Your task to perform on an android device: change notifications settings Image 0: 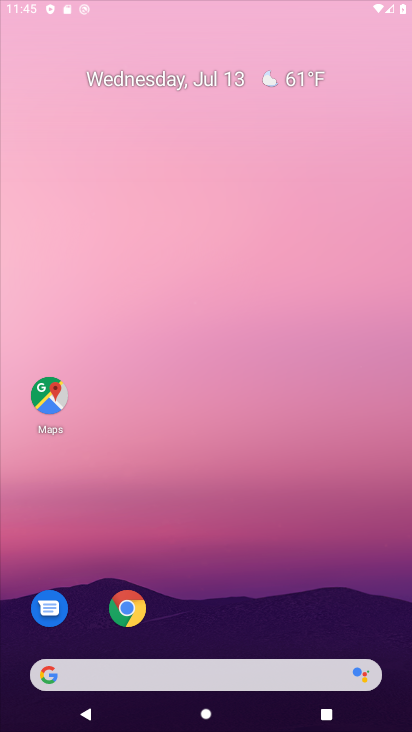
Step 0: click (265, 194)
Your task to perform on an android device: change notifications settings Image 1: 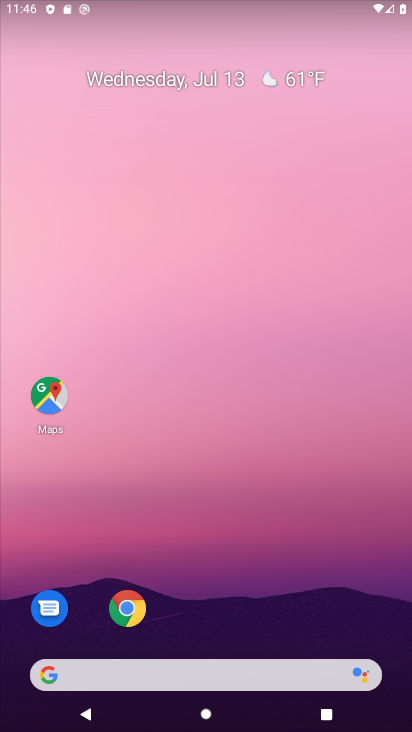
Step 1: drag from (163, 634) to (149, 285)
Your task to perform on an android device: change notifications settings Image 2: 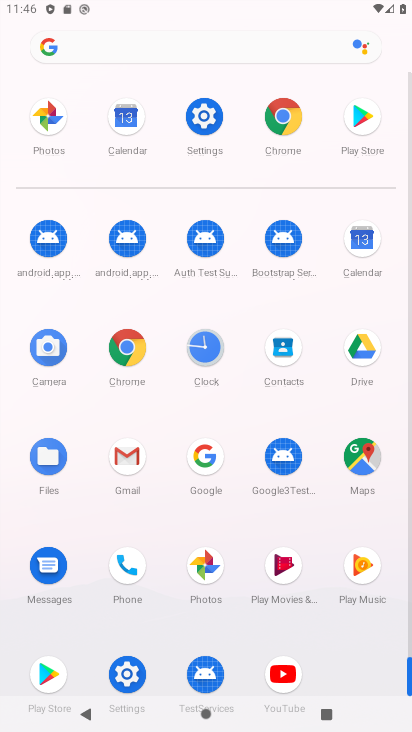
Step 2: click (203, 124)
Your task to perform on an android device: change notifications settings Image 3: 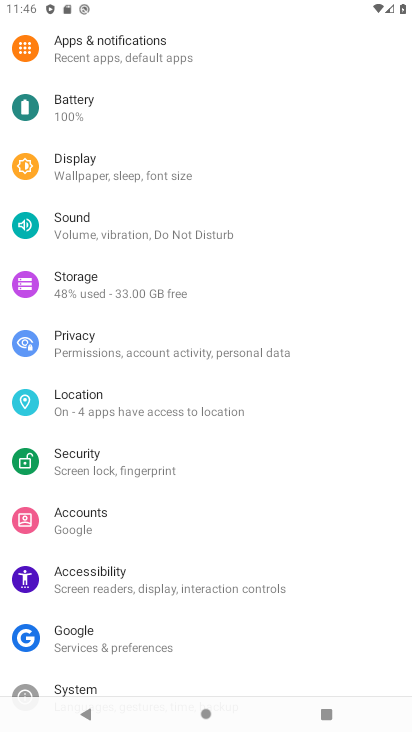
Step 3: drag from (153, 90) to (276, 503)
Your task to perform on an android device: change notifications settings Image 4: 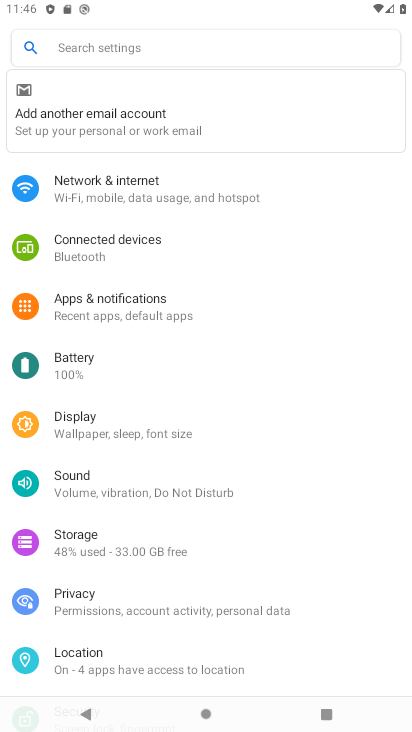
Step 4: click (137, 325)
Your task to perform on an android device: change notifications settings Image 5: 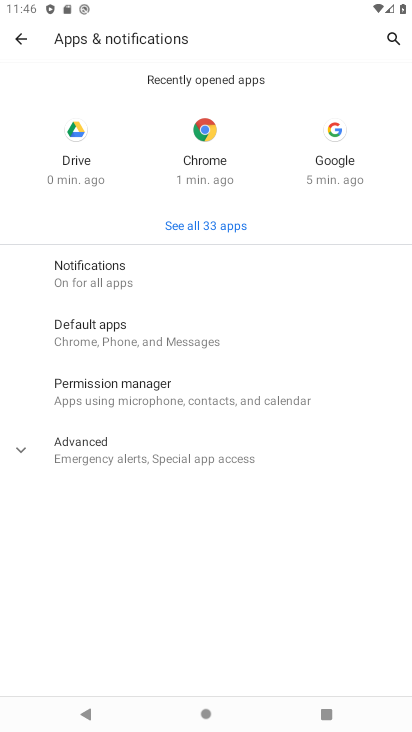
Step 5: click (118, 295)
Your task to perform on an android device: change notifications settings Image 6: 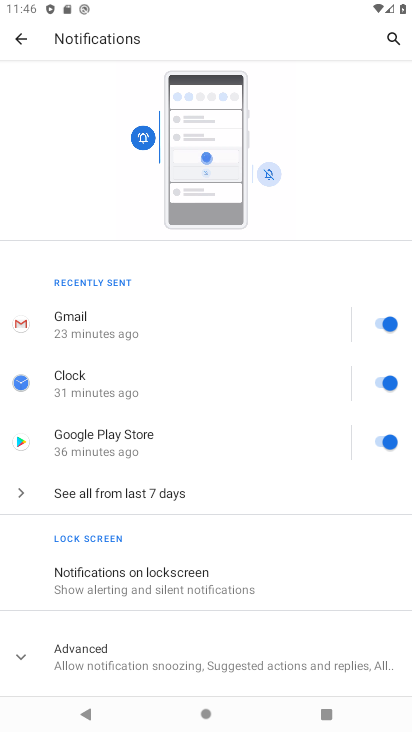
Step 6: click (146, 645)
Your task to perform on an android device: change notifications settings Image 7: 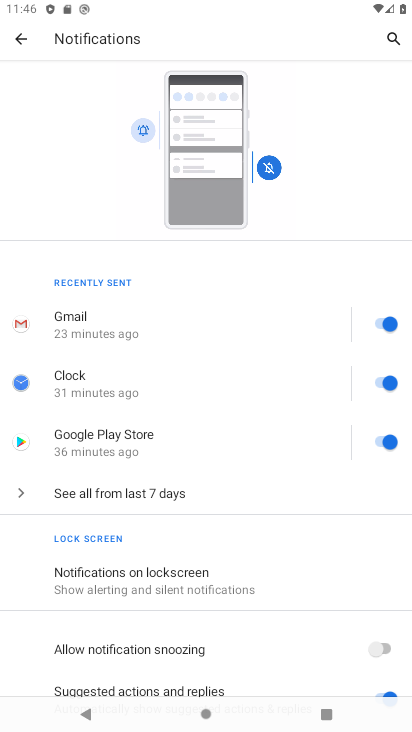
Step 7: drag from (219, 643) to (193, 442)
Your task to perform on an android device: change notifications settings Image 8: 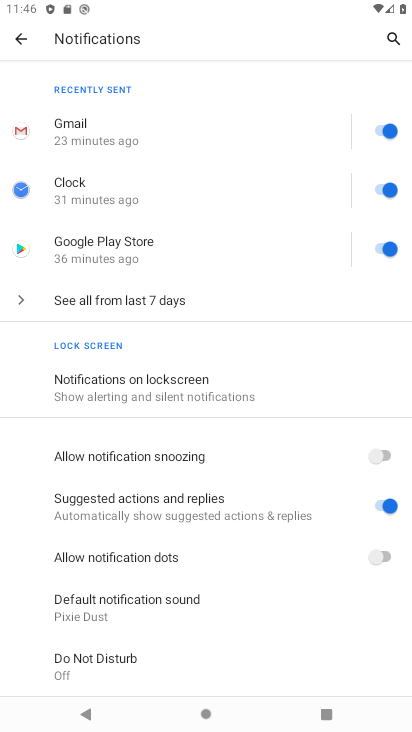
Step 8: drag from (185, 609) to (188, 411)
Your task to perform on an android device: change notifications settings Image 9: 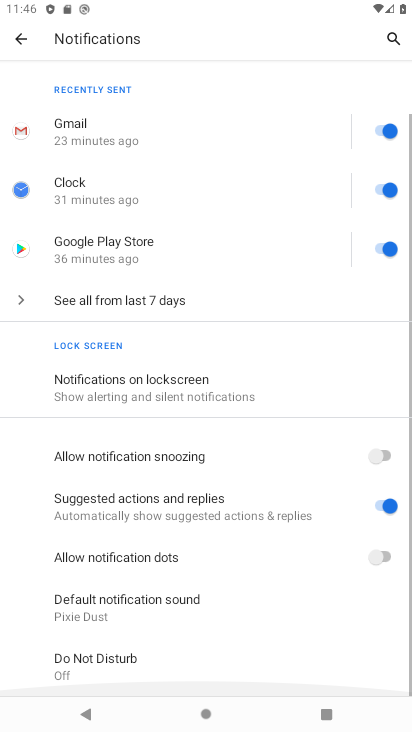
Step 9: drag from (202, 588) to (212, 412)
Your task to perform on an android device: change notifications settings Image 10: 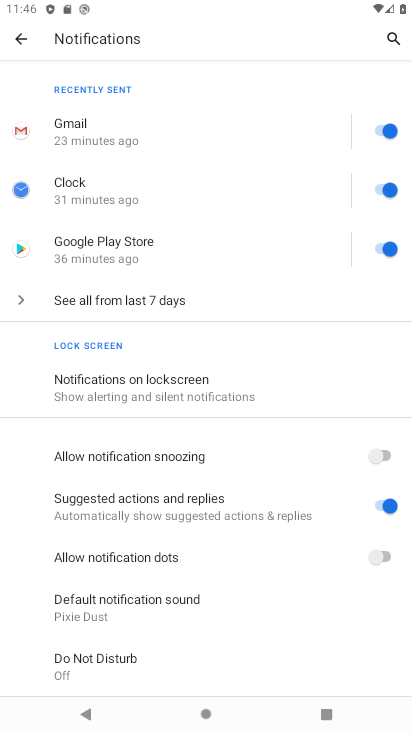
Step 10: drag from (181, 277) to (275, 603)
Your task to perform on an android device: change notifications settings Image 11: 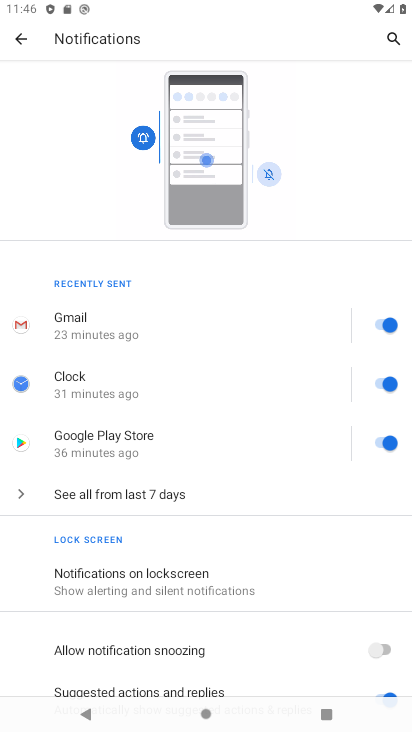
Step 11: drag from (215, 312) to (273, 563)
Your task to perform on an android device: change notifications settings Image 12: 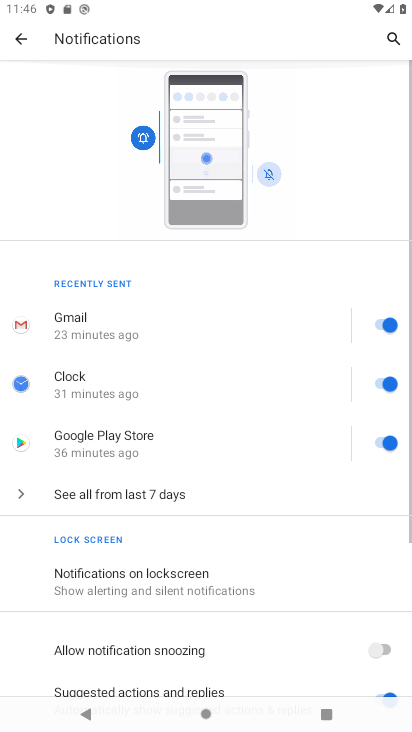
Step 12: drag from (263, 550) to (240, 315)
Your task to perform on an android device: change notifications settings Image 13: 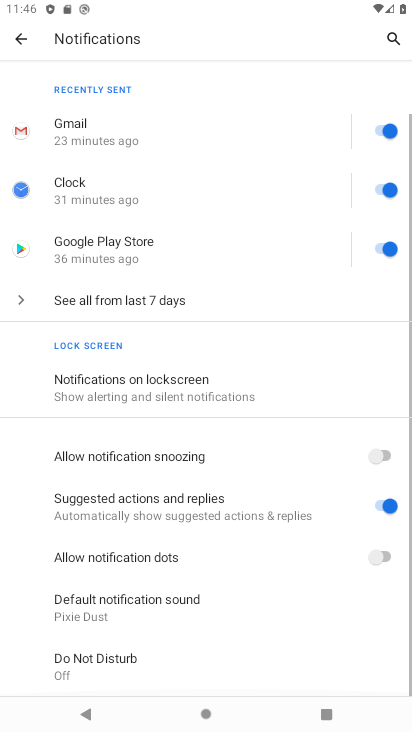
Step 13: drag from (218, 253) to (275, 564)
Your task to perform on an android device: change notifications settings Image 14: 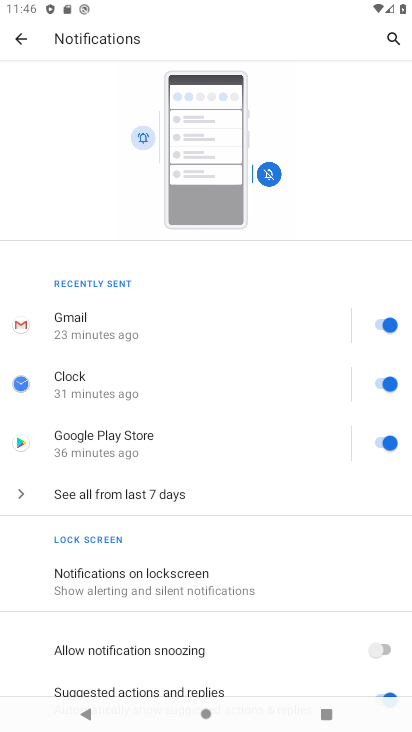
Step 14: drag from (245, 563) to (245, 351)
Your task to perform on an android device: change notifications settings Image 15: 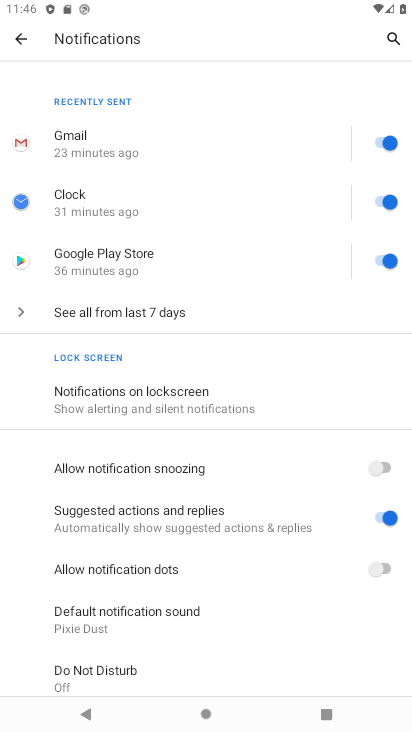
Step 15: drag from (244, 529) to (260, 189)
Your task to perform on an android device: change notifications settings Image 16: 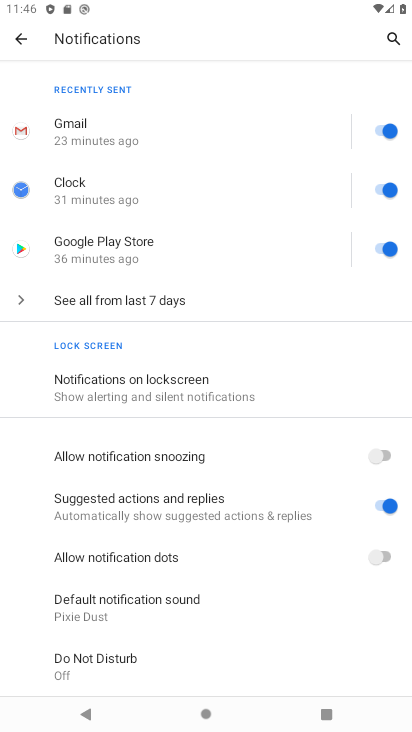
Step 16: drag from (220, 633) to (246, 403)
Your task to perform on an android device: change notifications settings Image 17: 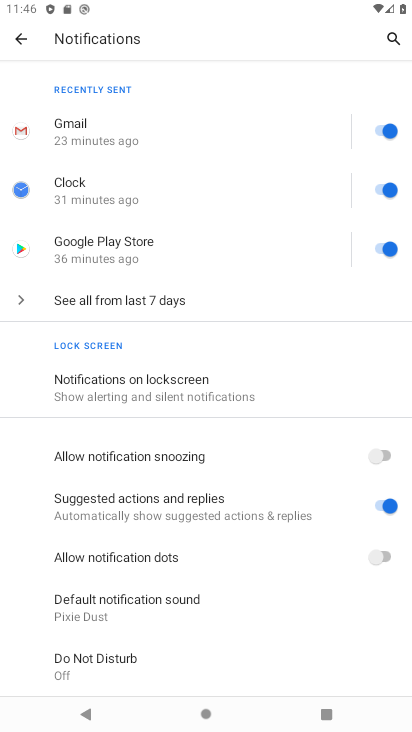
Step 17: drag from (219, 532) to (224, 248)
Your task to perform on an android device: change notifications settings Image 18: 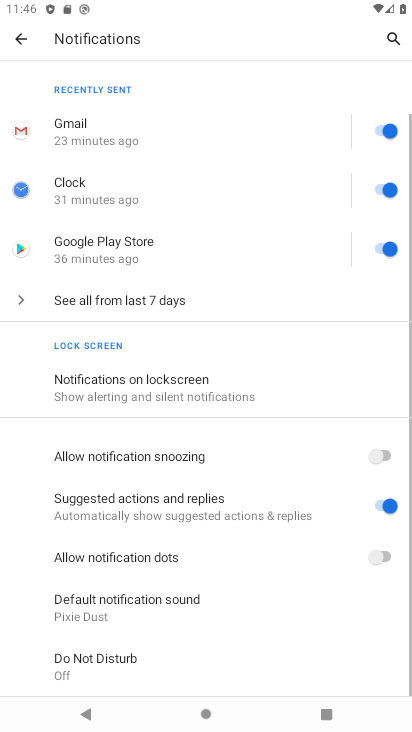
Step 18: drag from (249, 200) to (286, 649)
Your task to perform on an android device: change notifications settings Image 19: 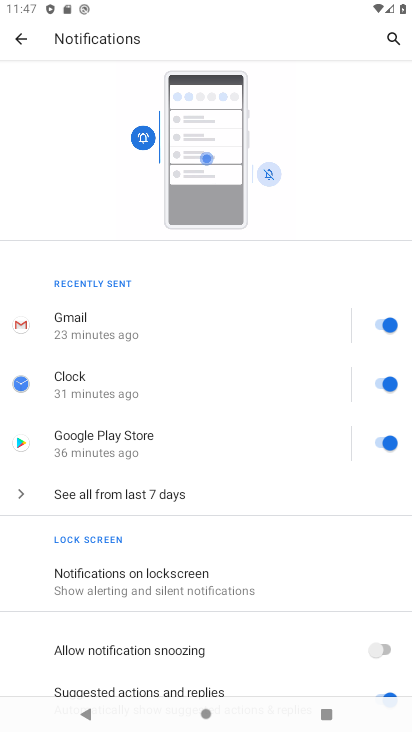
Step 19: click (384, 324)
Your task to perform on an android device: change notifications settings Image 20: 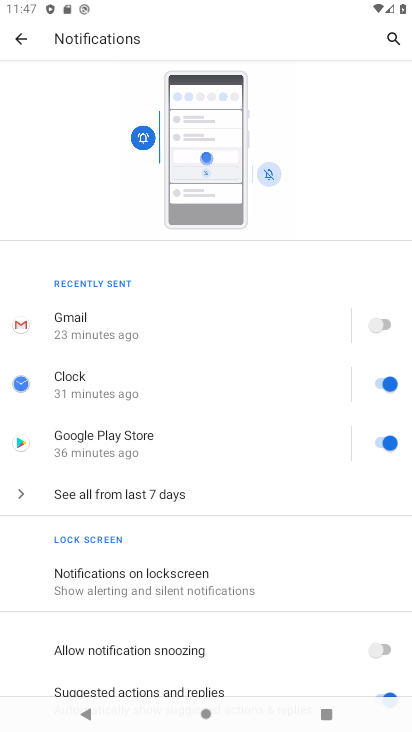
Step 20: task complete